Your task to perform on an android device: empty trash in the gmail app Image 0: 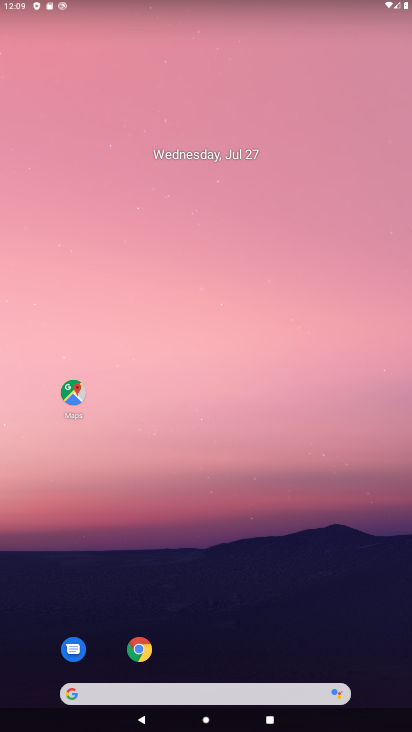
Step 0: drag from (213, 596) to (238, 158)
Your task to perform on an android device: empty trash in the gmail app Image 1: 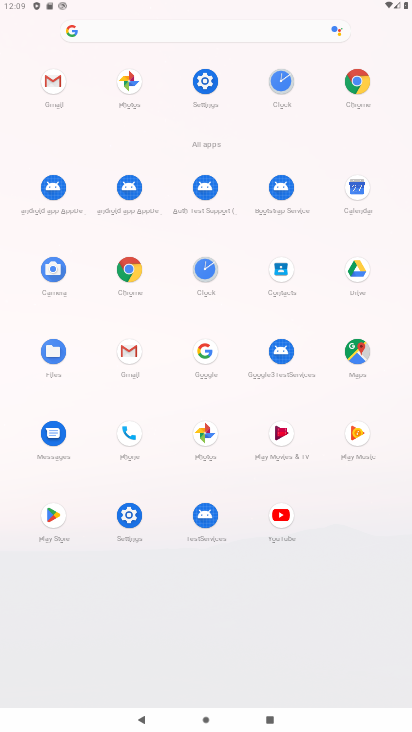
Step 1: click (52, 83)
Your task to perform on an android device: empty trash in the gmail app Image 2: 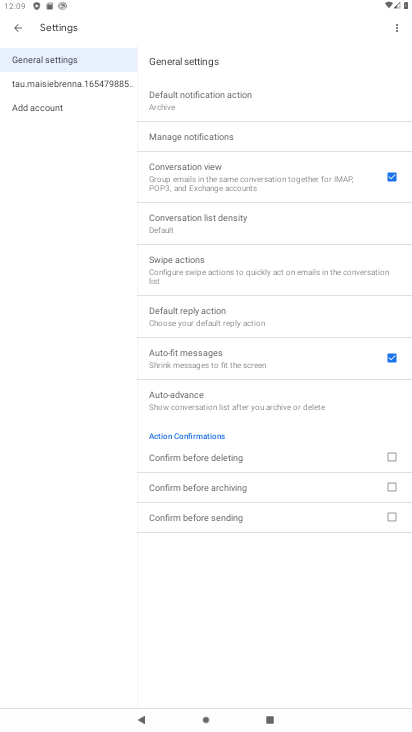
Step 2: click (10, 25)
Your task to perform on an android device: empty trash in the gmail app Image 3: 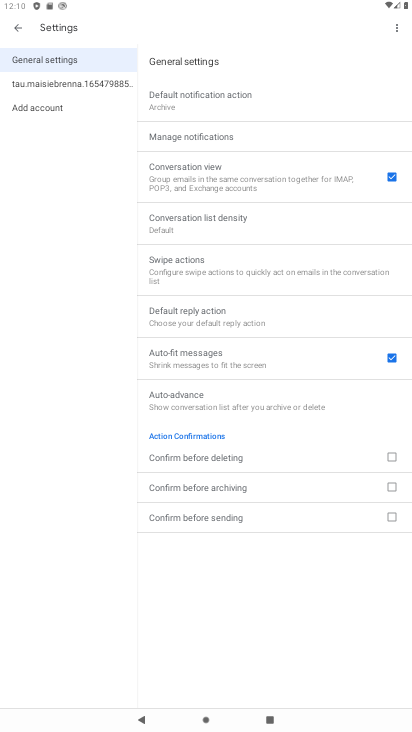
Step 3: click (17, 23)
Your task to perform on an android device: empty trash in the gmail app Image 4: 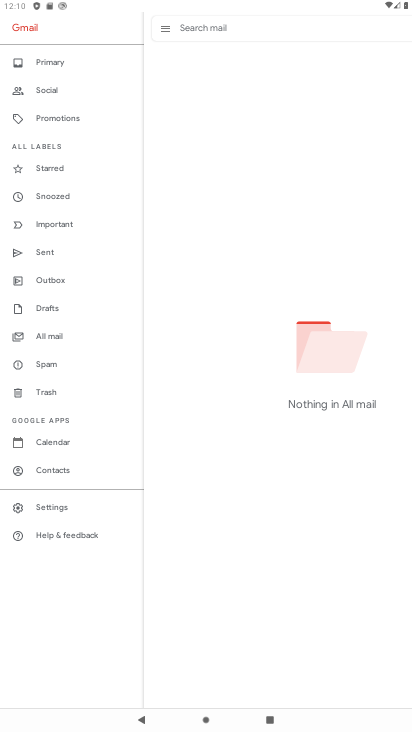
Step 4: click (41, 389)
Your task to perform on an android device: empty trash in the gmail app Image 5: 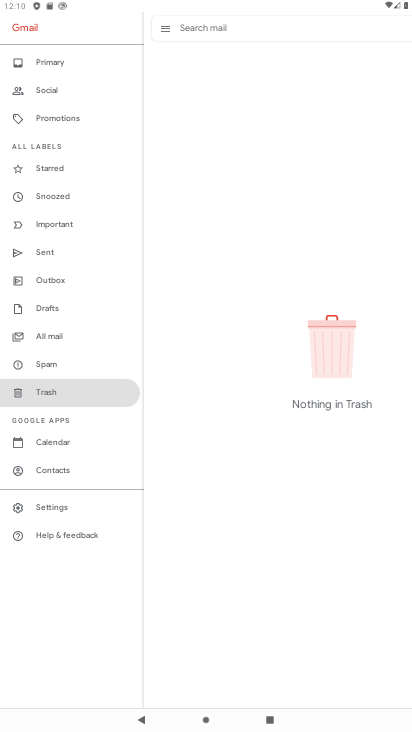
Step 5: task complete